Your task to perform on an android device: turn on translation in the chrome app Image 0: 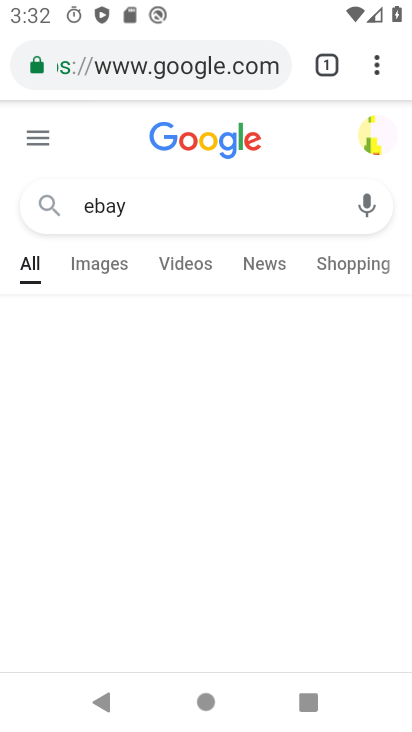
Step 0: press home button
Your task to perform on an android device: turn on translation in the chrome app Image 1: 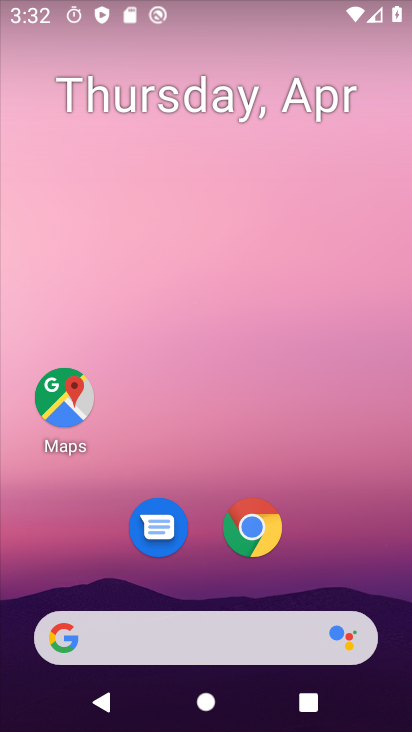
Step 1: click (262, 526)
Your task to perform on an android device: turn on translation in the chrome app Image 2: 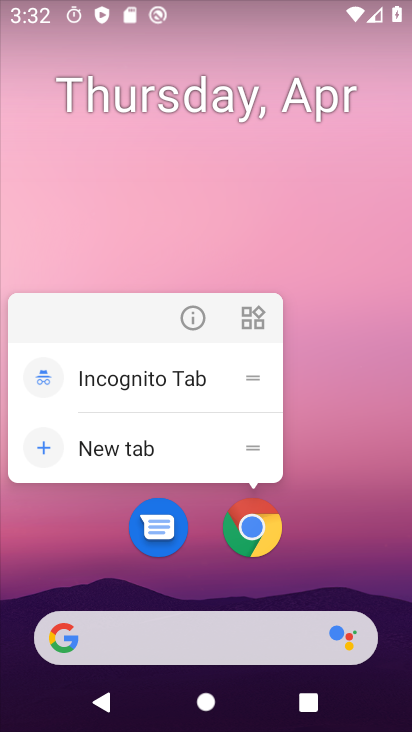
Step 2: click (245, 533)
Your task to perform on an android device: turn on translation in the chrome app Image 3: 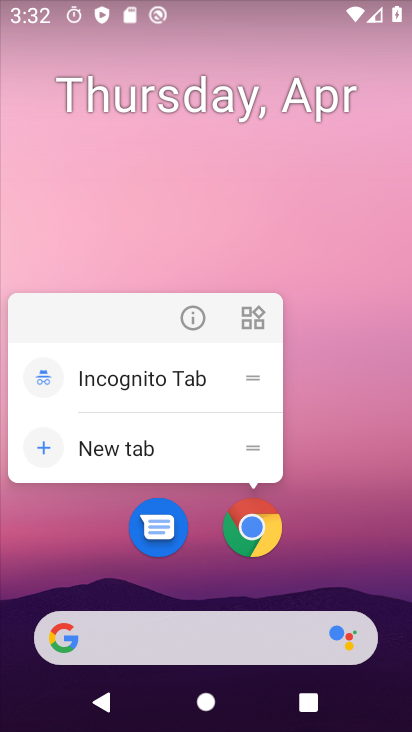
Step 3: click (256, 528)
Your task to perform on an android device: turn on translation in the chrome app Image 4: 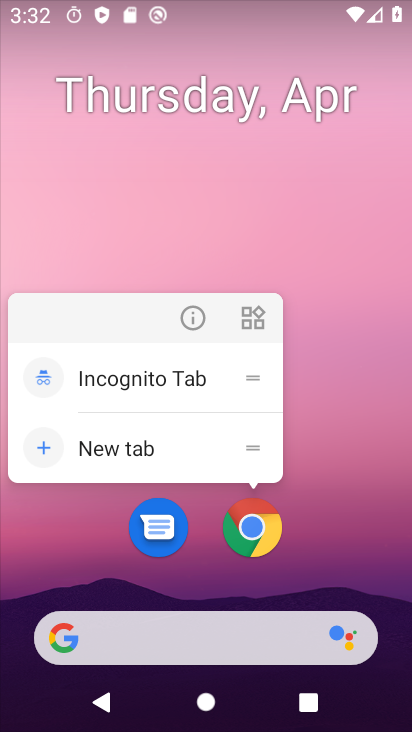
Step 4: drag from (329, 504) to (319, 0)
Your task to perform on an android device: turn on translation in the chrome app Image 5: 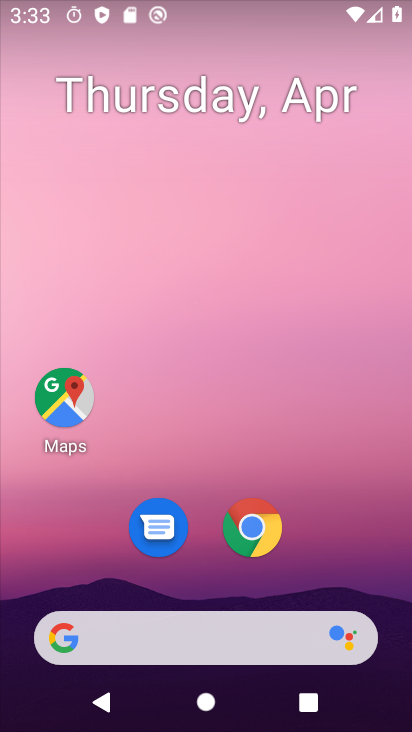
Step 5: drag from (346, 508) to (343, 163)
Your task to perform on an android device: turn on translation in the chrome app Image 6: 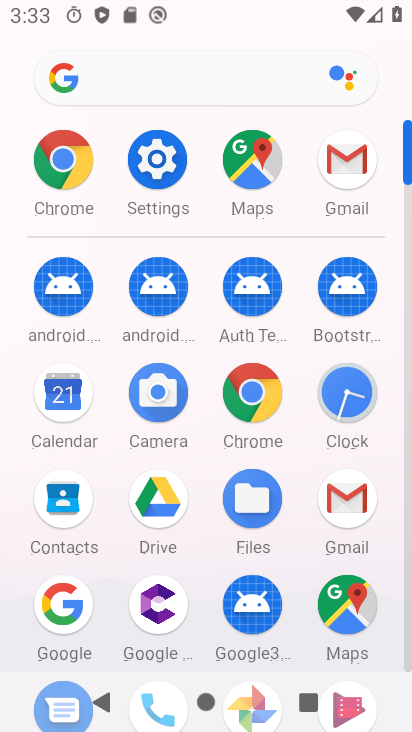
Step 6: click (253, 381)
Your task to perform on an android device: turn on translation in the chrome app Image 7: 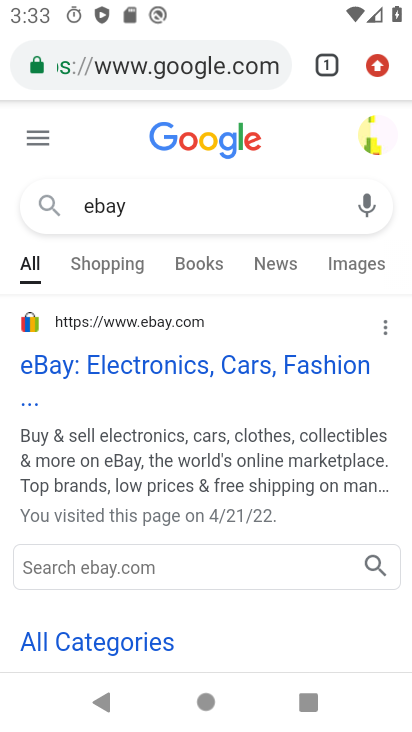
Step 7: drag from (392, 59) to (228, 563)
Your task to perform on an android device: turn on translation in the chrome app Image 8: 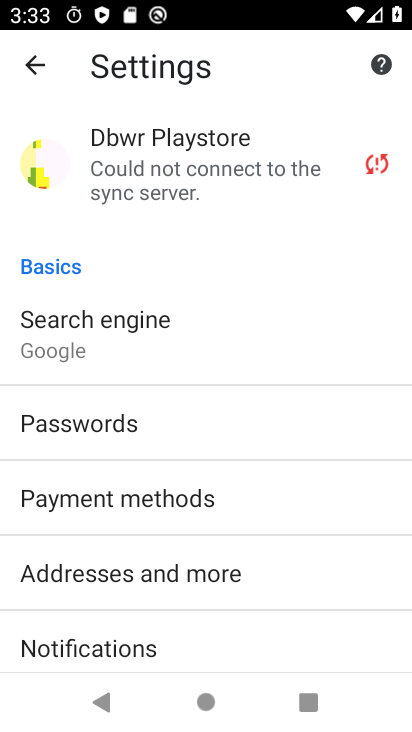
Step 8: drag from (179, 606) to (185, 246)
Your task to perform on an android device: turn on translation in the chrome app Image 9: 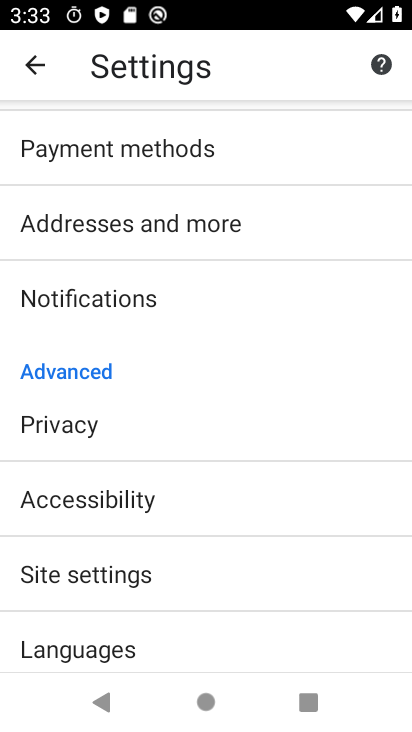
Step 9: drag from (219, 631) to (262, 301)
Your task to perform on an android device: turn on translation in the chrome app Image 10: 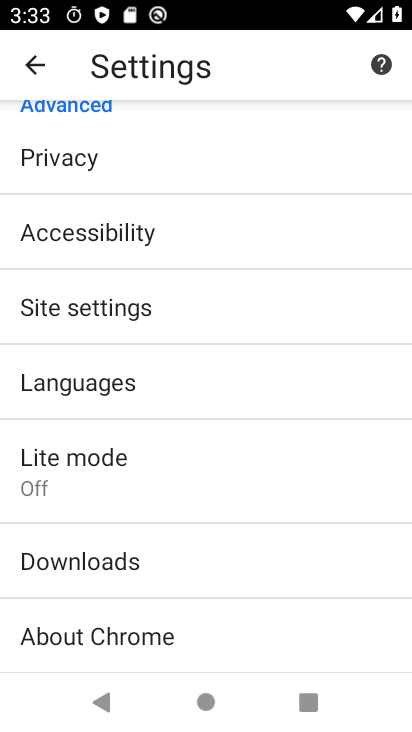
Step 10: click (135, 390)
Your task to perform on an android device: turn on translation in the chrome app Image 11: 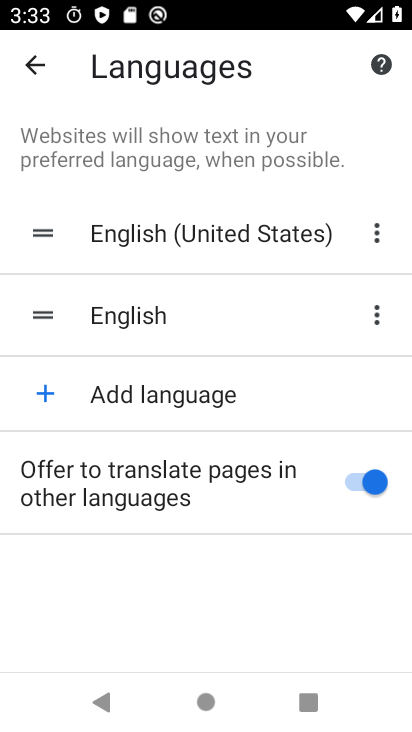
Step 11: task complete